Your task to perform on an android device: Go to settings Image 0: 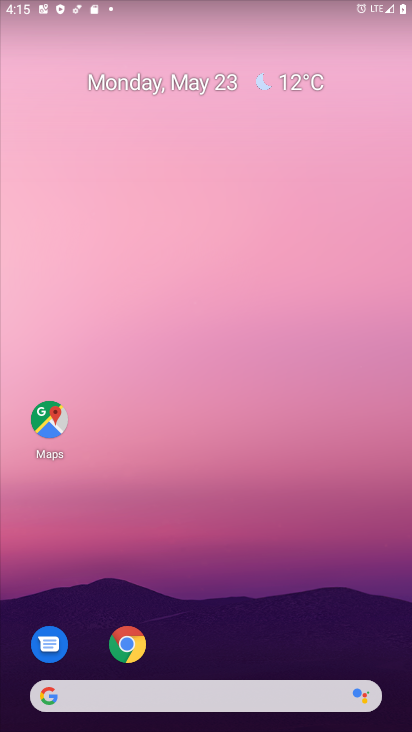
Step 0: drag from (284, 552) to (210, 205)
Your task to perform on an android device: Go to settings Image 1: 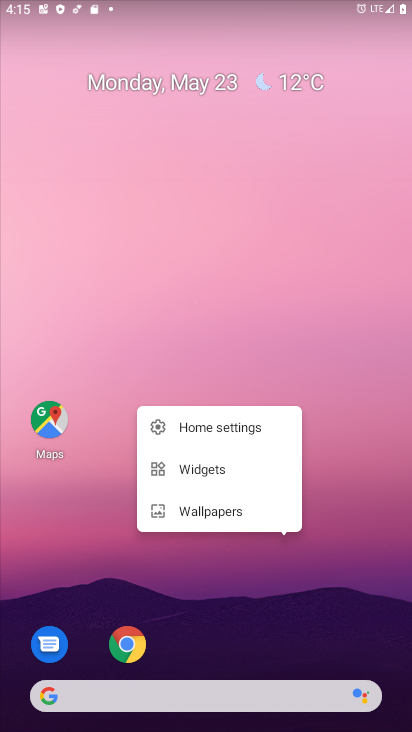
Step 1: drag from (402, 609) to (325, 281)
Your task to perform on an android device: Go to settings Image 2: 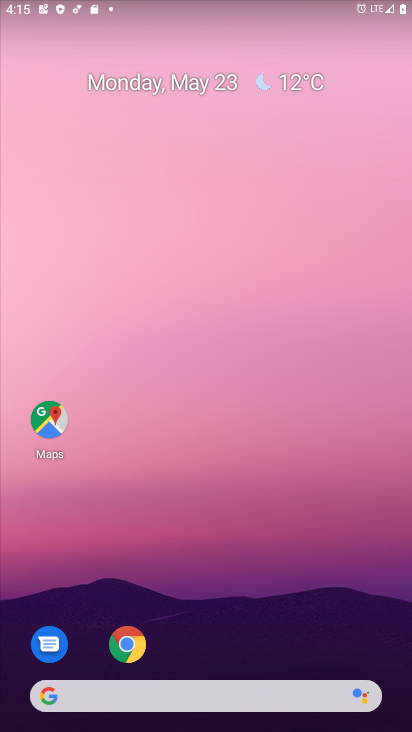
Step 2: drag from (239, 663) to (174, 116)
Your task to perform on an android device: Go to settings Image 3: 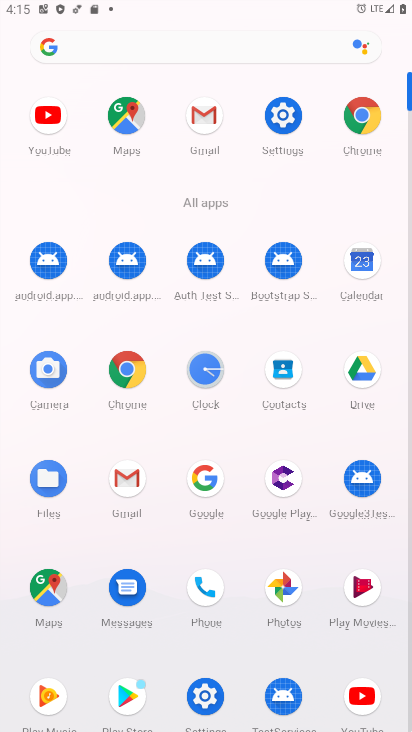
Step 3: click (269, 123)
Your task to perform on an android device: Go to settings Image 4: 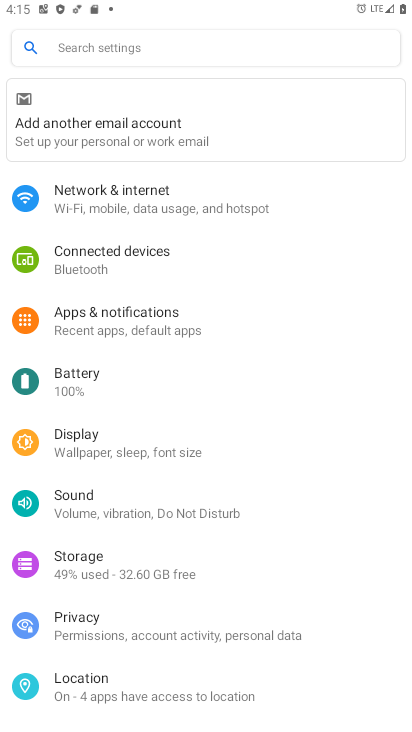
Step 4: task complete